Your task to perform on an android device: Search for vegetarian restaurants on Maps Image 0: 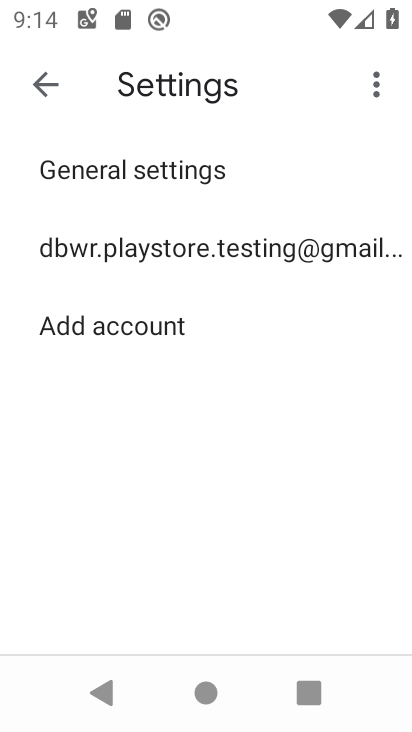
Step 0: press home button
Your task to perform on an android device: Search for vegetarian restaurants on Maps Image 1: 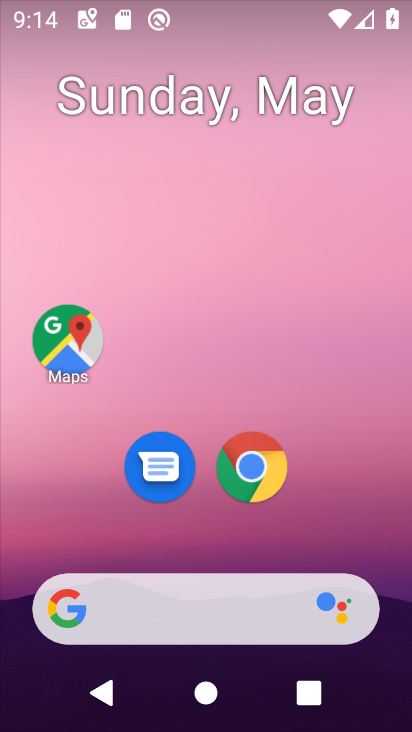
Step 1: drag from (327, 504) to (345, 154)
Your task to perform on an android device: Search for vegetarian restaurants on Maps Image 2: 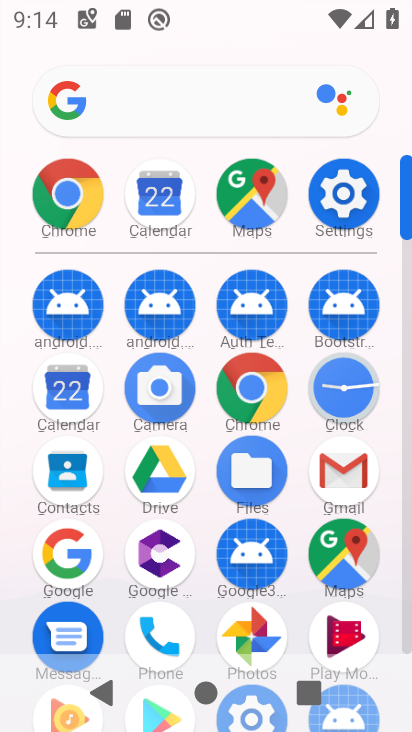
Step 2: click (350, 546)
Your task to perform on an android device: Search for vegetarian restaurants on Maps Image 3: 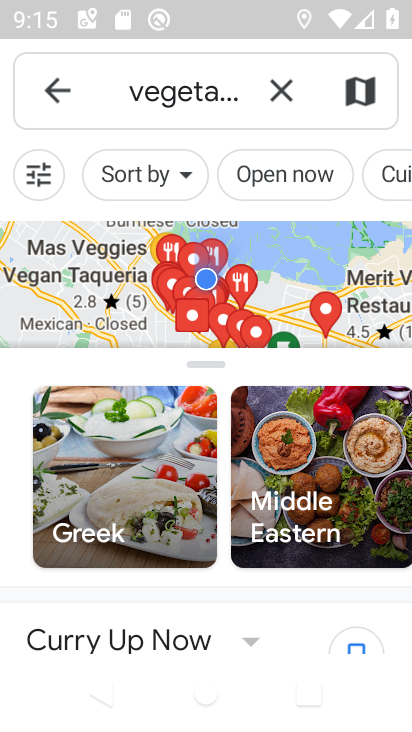
Step 3: task complete